Your task to perform on an android device: Open the phone app and click the voicemail tab. Image 0: 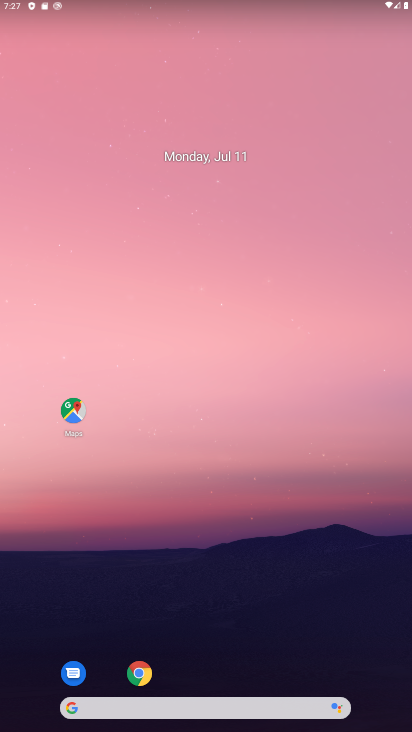
Step 0: task complete